Your task to perform on an android device: Search for the best rated 3d printer on Amazon. Image 0: 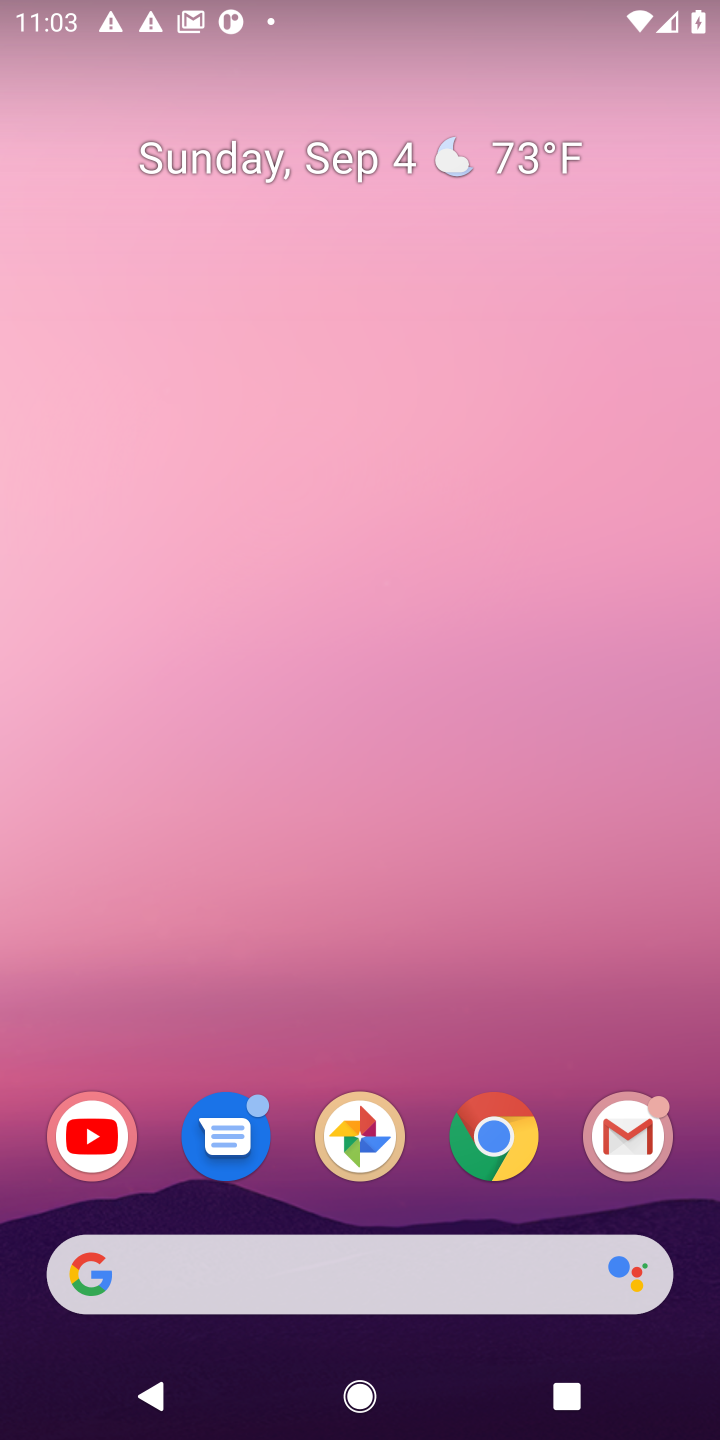
Step 0: click (493, 1138)
Your task to perform on an android device: Search for the best rated 3d printer on Amazon. Image 1: 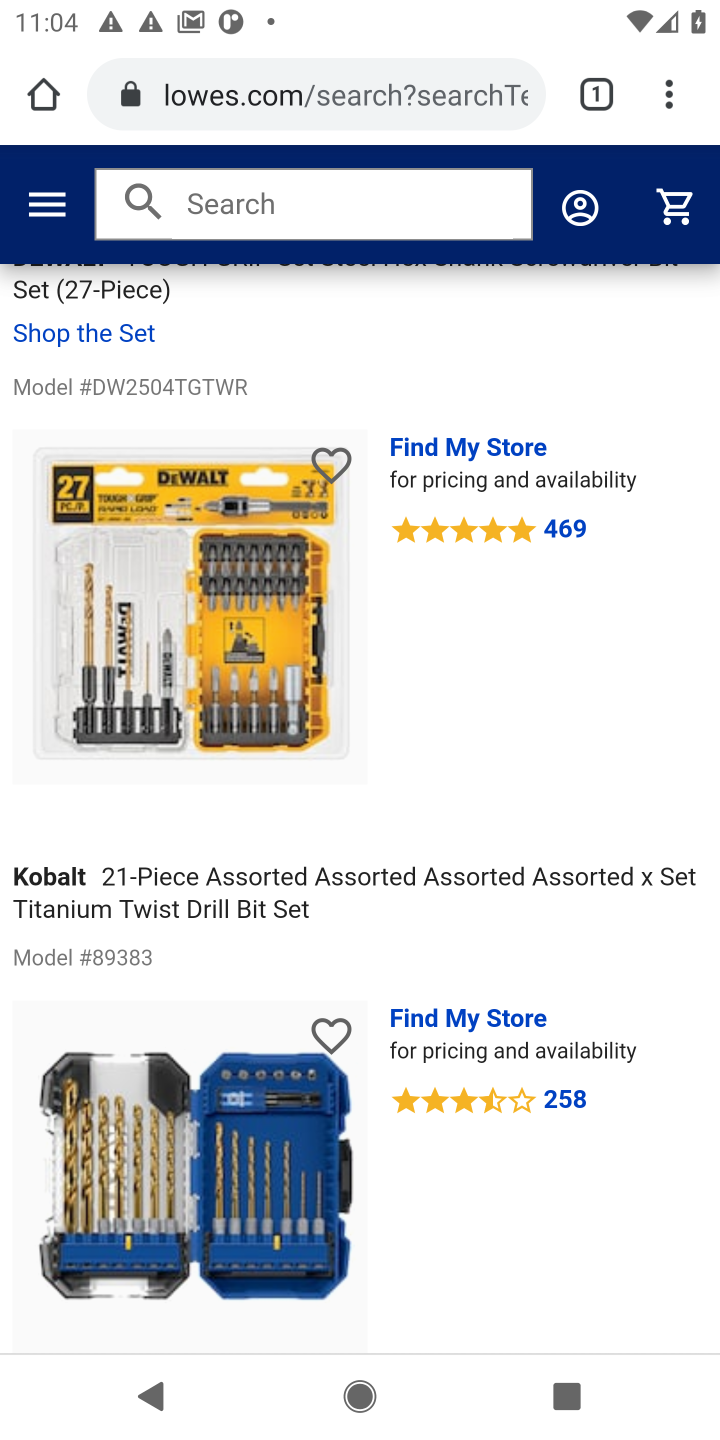
Step 1: task complete